Your task to perform on an android device: delete browsing data in the chrome app Image 0: 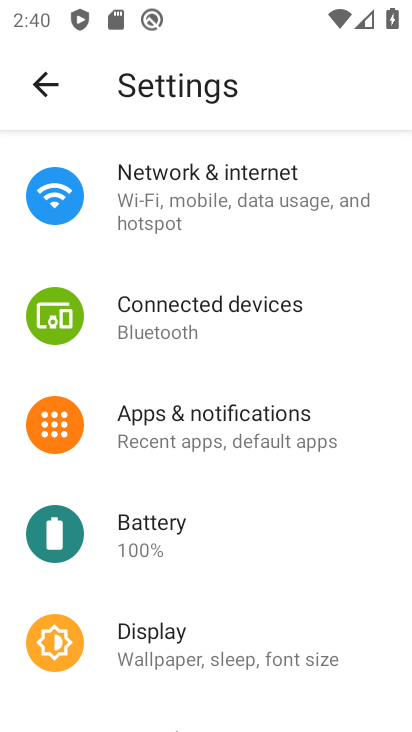
Step 0: press home button
Your task to perform on an android device: delete browsing data in the chrome app Image 1: 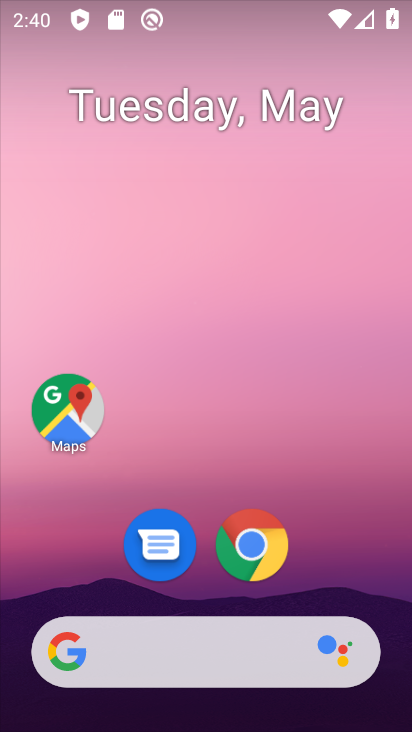
Step 1: click (256, 544)
Your task to perform on an android device: delete browsing data in the chrome app Image 2: 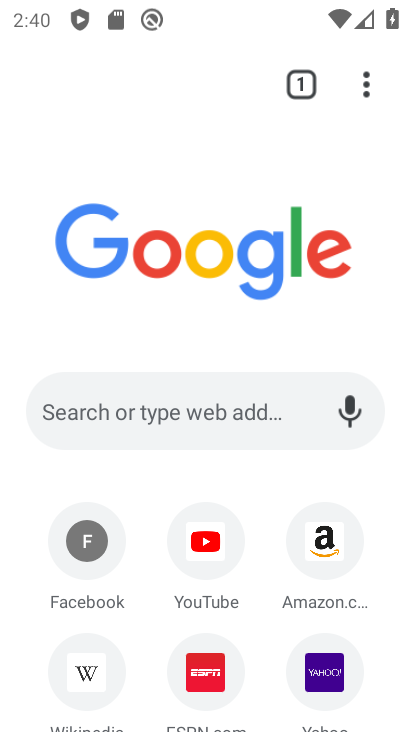
Step 2: drag from (362, 80) to (192, 476)
Your task to perform on an android device: delete browsing data in the chrome app Image 3: 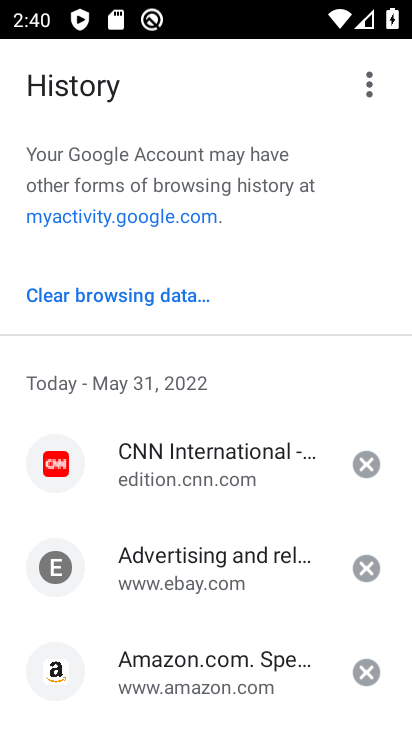
Step 3: click (118, 292)
Your task to perform on an android device: delete browsing data in the chrome app Image 4: 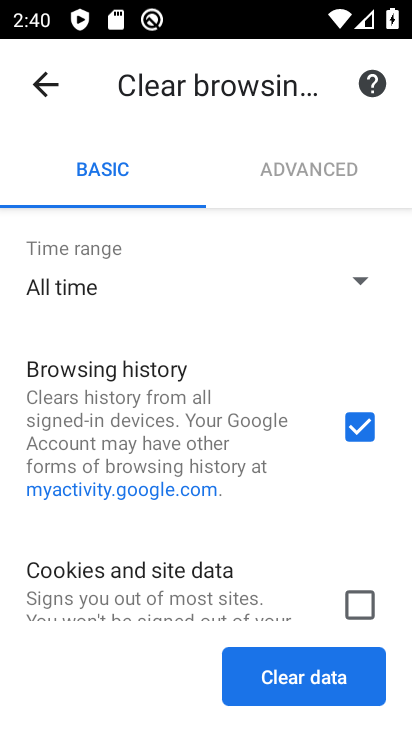
Step 4: click (309, 685)
Your task to perform on an android device: delete browsing data in the chrome app Image 5: 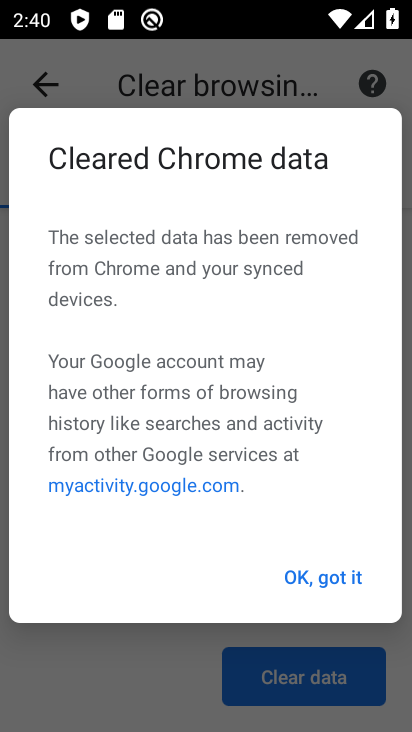
Step 5: click (311, 577)
Your task to perform on an android device: delete browsing data in the chrome app Image 6: 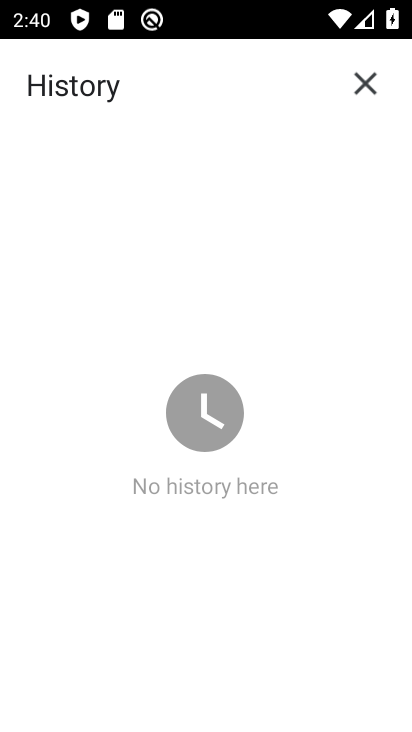
Step 6: task complete